Your task to perform on an android device: What's the weather like in Los Angeles? Image 0: 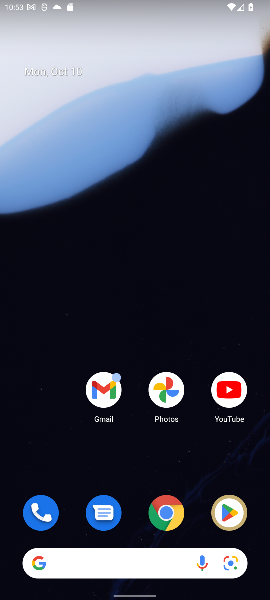
Step 0: click (114, 563)
Your task to perform on an android device: What's the weather like in Los Angeles? Image 1: 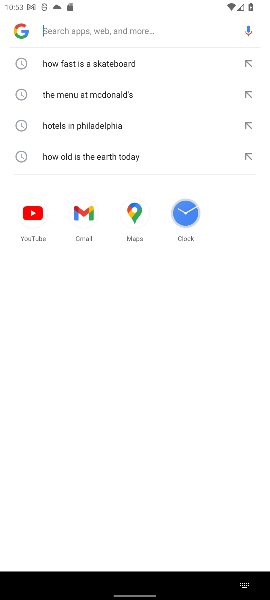
Step 1: type "What's the weather like in Los Angeles?"
Your task to perform on an android device: What's the weather like in Los Angeles? Image 2: 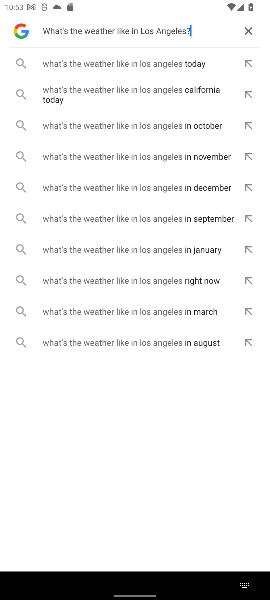
Step 2: click (182, 68)
Your task to perform on an android device: What's the weather like in Los Angeles? Image 3: 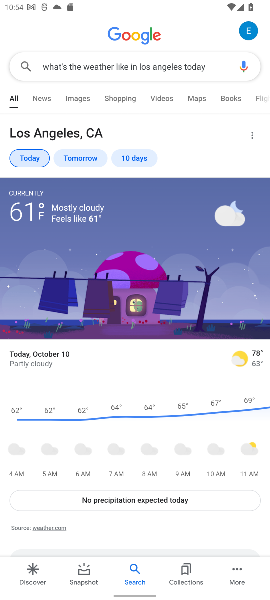
Step 3: task complete